Your task to perform on an android device: Open the stopwatch Image 0: 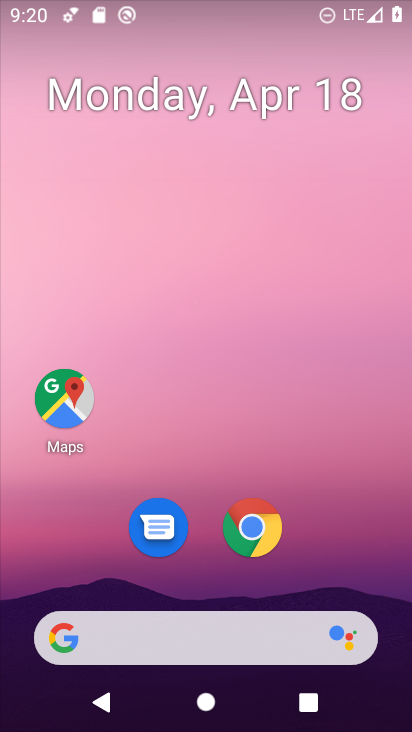
Step 0: drag from (399, 656) to (282, 57)
Your task to perform on an android device: Open the stopwatch Image 1: 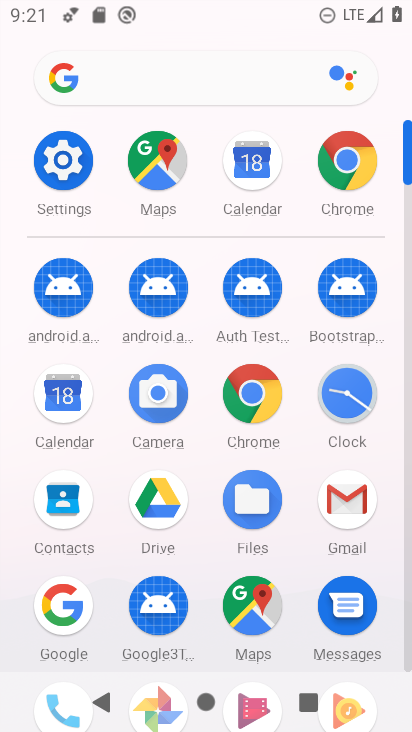
Step 1: click (348, 390)
Your task to perform on an android device: Open the stopwatch Image 2: 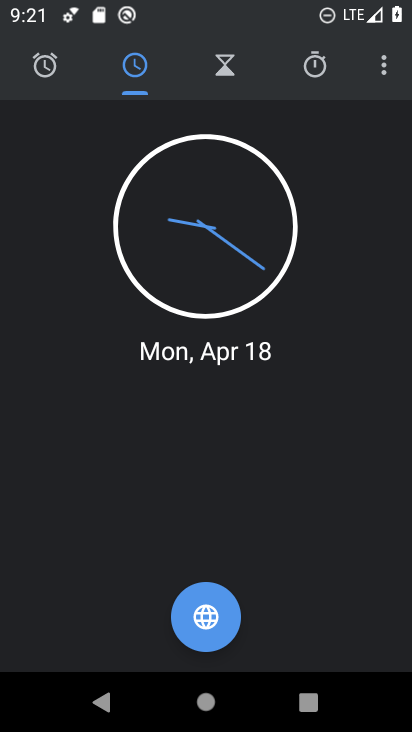
Step 2: click (309, 54)
Your task to perform on an android device: Open the stopwatch Image 3: 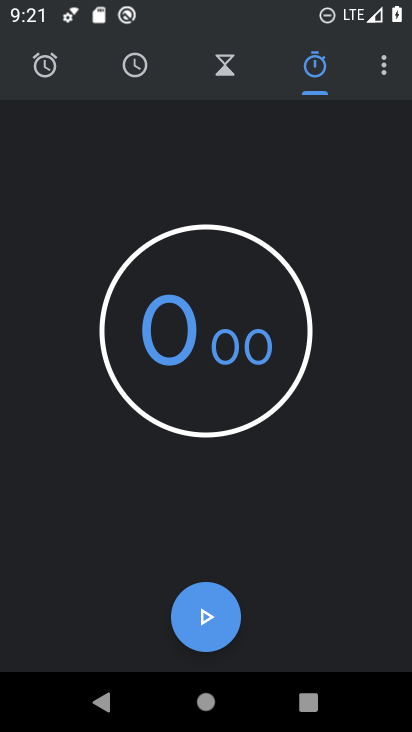
Step 3: task complete